Your task to perform on an android device: turn on wifi Image 0: 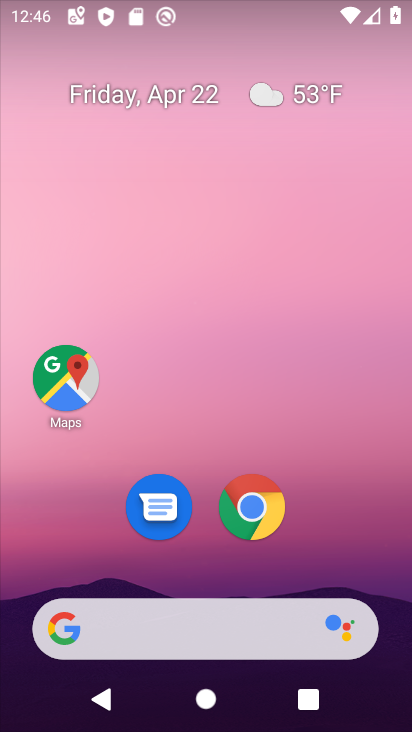
Step 0: drag from (298, 355) to (273, 29)
Your task to perform on an android device: turn on wifi Image 1: 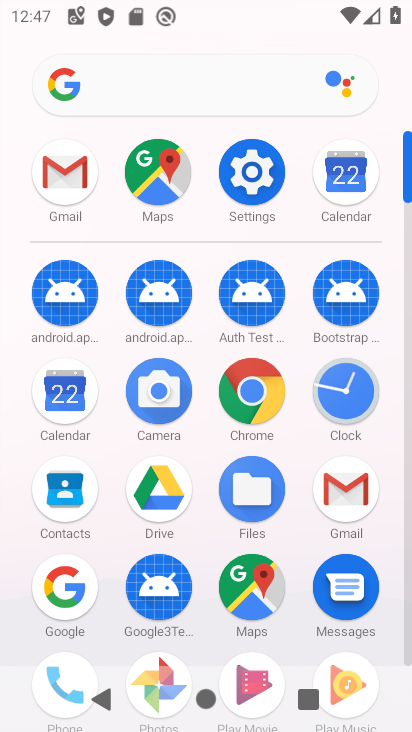
Step 1: click (273, 172)
Your task to perform on an android device: turn on wifi Image 2: 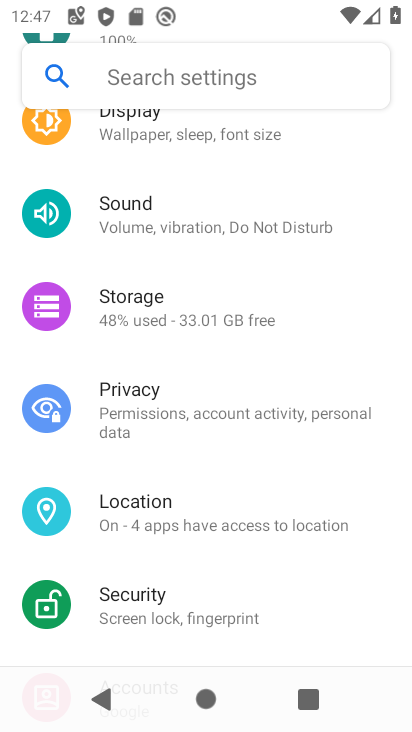
Step 2: drag from (263, 155) to (220, 579)
Your task to perform on an android device: turn on wifi Image 3: 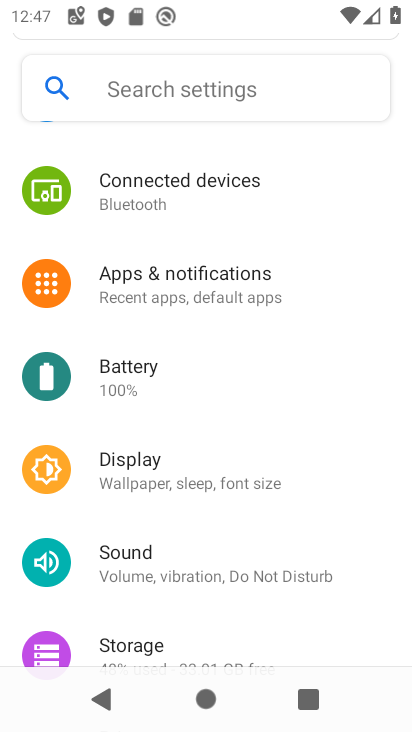
Step 3: drag from (220, 175) to (194, 567)
Your task to perform on an android device: turn on wifi Image 4: 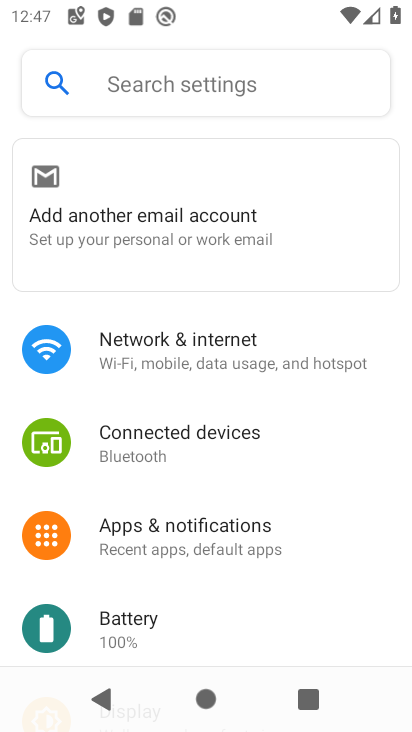
Step 4: click (177, 350)
Your task to perform on an android device: turn on wifi Image 5: 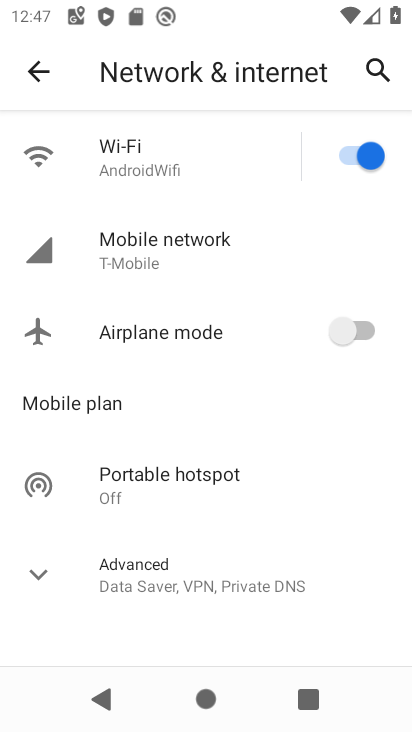
Step 5: task complete